Your task to perform on an android device: change the clock style Image 0: 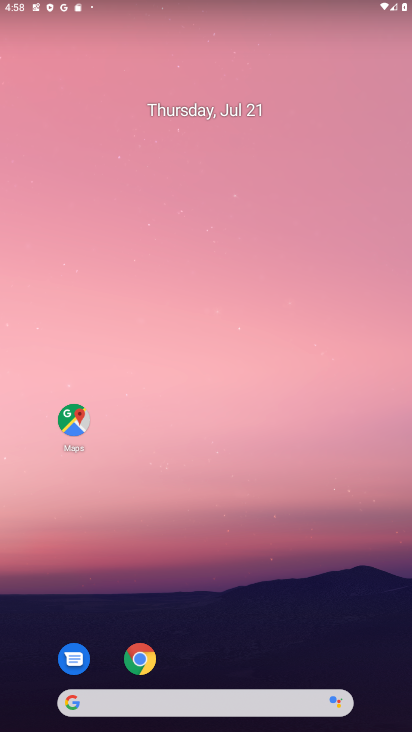
Step 0: drag from (272, 589) to (191, 3)
Your task to perform on an android device: change the clock style Image 1: 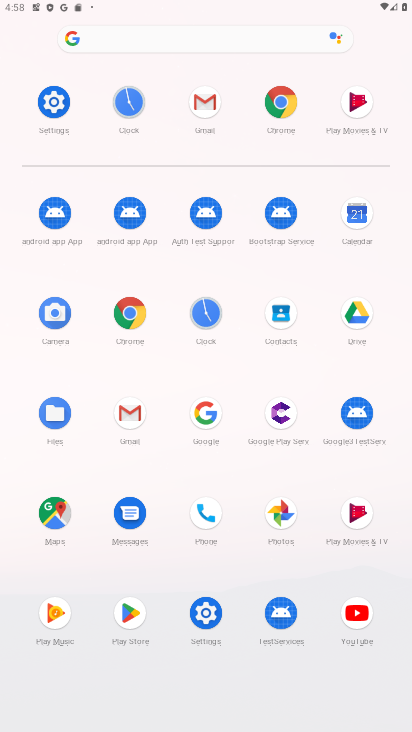
Step 1: click (128, 100)
Your task to perform on an android device: change the clock style Image 2: 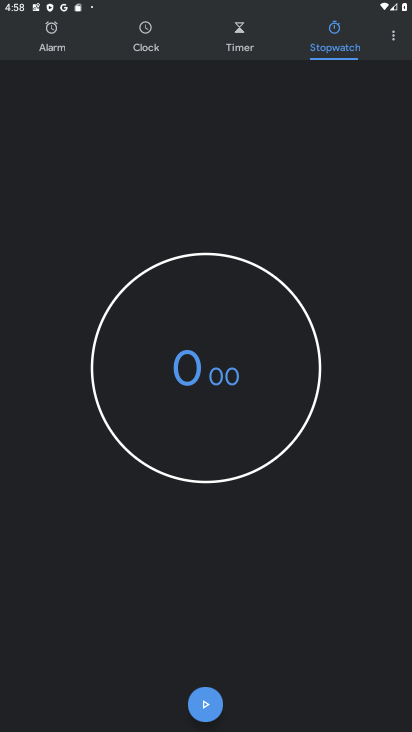
Step 2: click (395, 36)
Your task to perform on an android device: change the clock style Image 3: 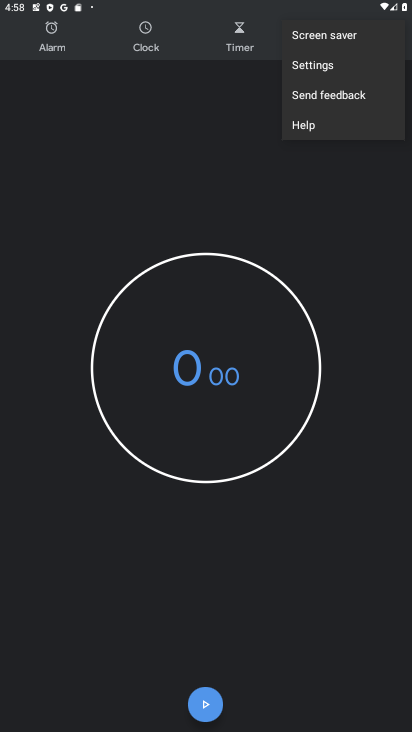
Step 3: click (321, 64)
Your task to perform on an android device: change the clock style Image 4: 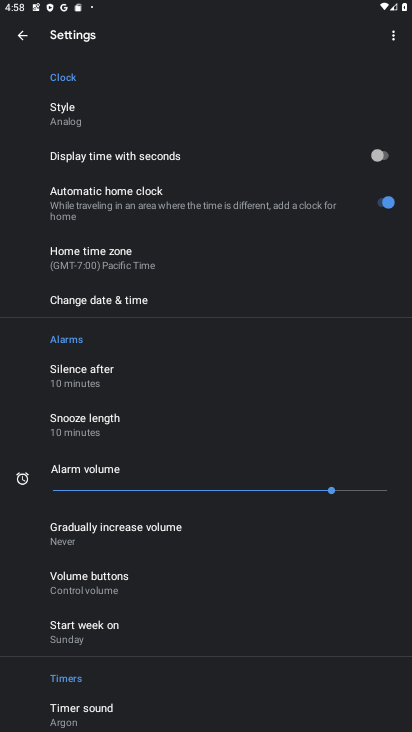
Step 4: click (70, 103)
Your task to perform on an android device: change the clock style Image 5: 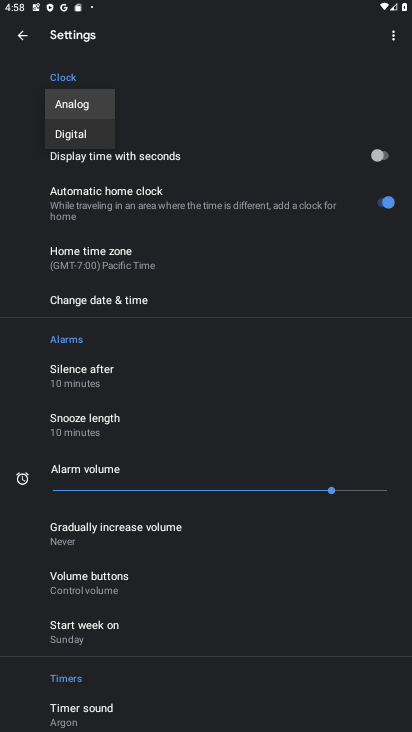
Step 5: click (73, 137)
Your task to perform on an android device: change the clock style Image 6: 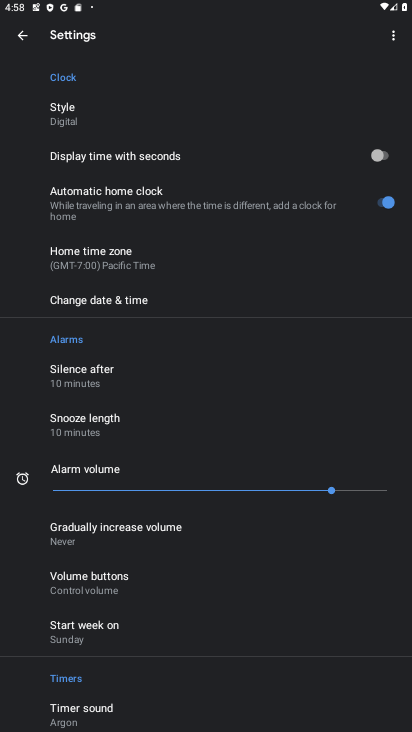
Step 6: task complete